Your task to perform on an android device: turn off data saver in the chrome app Image 0: 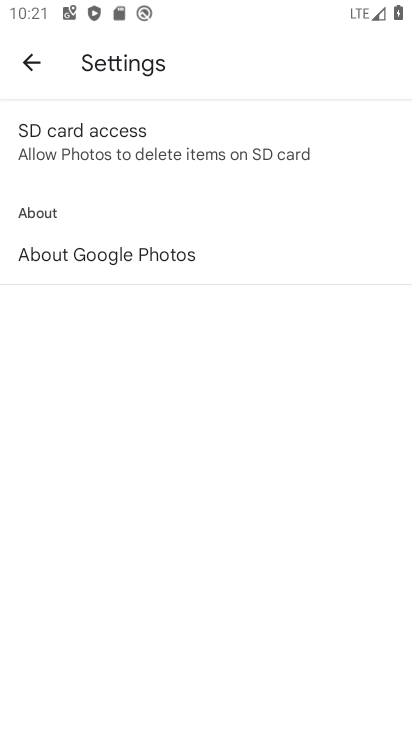
Step 0: press home button
Your task to perform on an android device: turn off data saver in the chrome app Image 1: 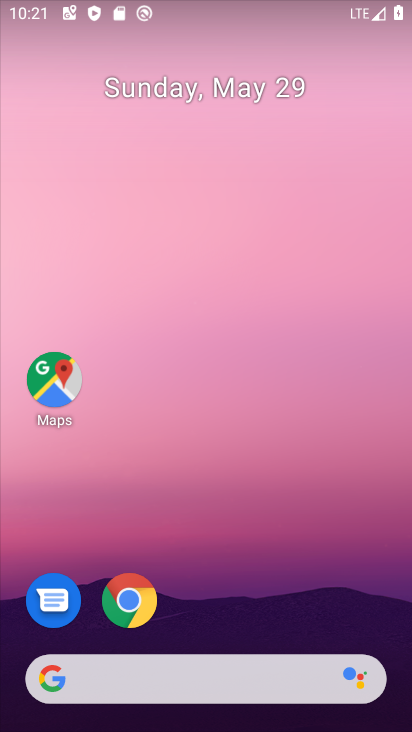
Step 1: click (143, 626)
Your task to perform on an android device: turn off data saver in the chrome app Image 2: 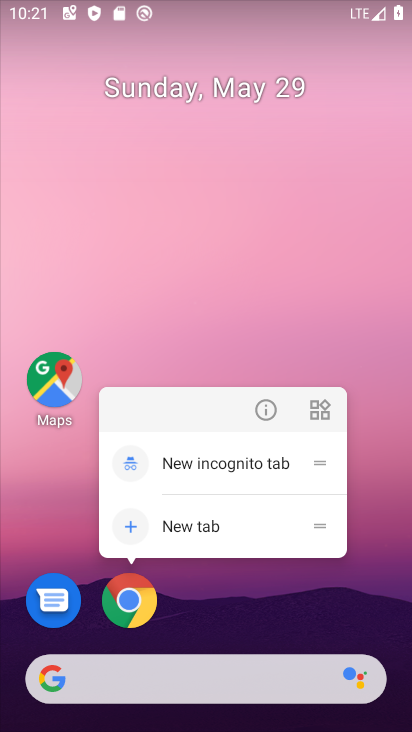
Step 2: click (143, 626)
Your task to perform on an android device: turn off data saver in the chrome app Image 3: 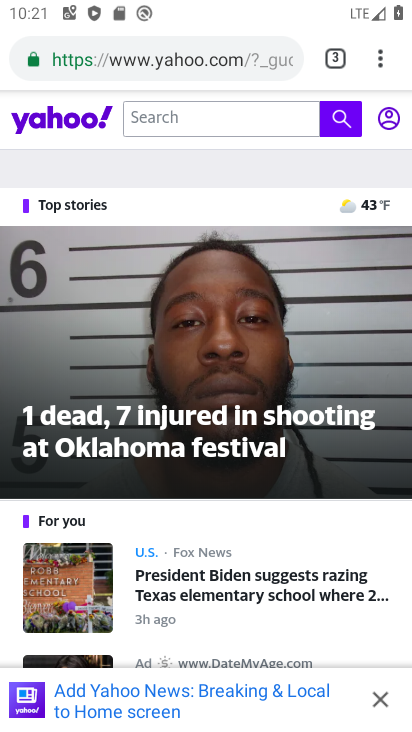
Step 3: drag from (376, 61) to (190, 607)
Your task to perform on an android device: turn off data saver in the chrome app Image 4: 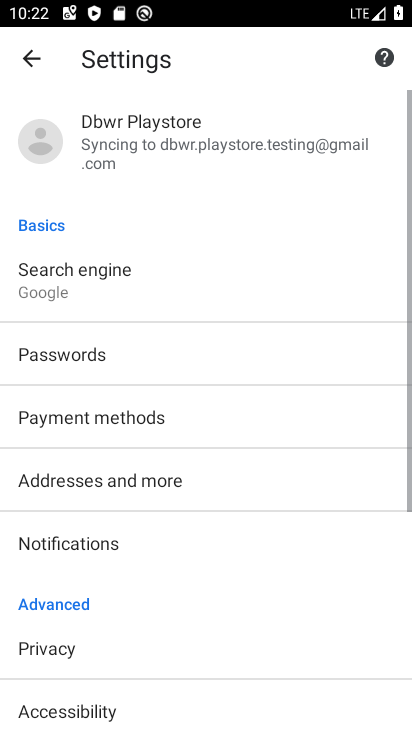
Step 4: drag from (210, 660) to (278, 58)
Your task to perform on an android device: turn off data saver in the chrome app Image 5: 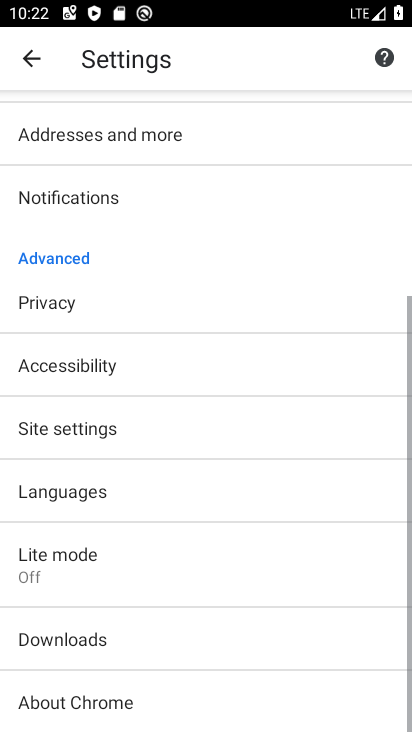
Step 5: click (137, 545)
Your task to perform on an android device: turn off data saver in the chrome app Image 6: 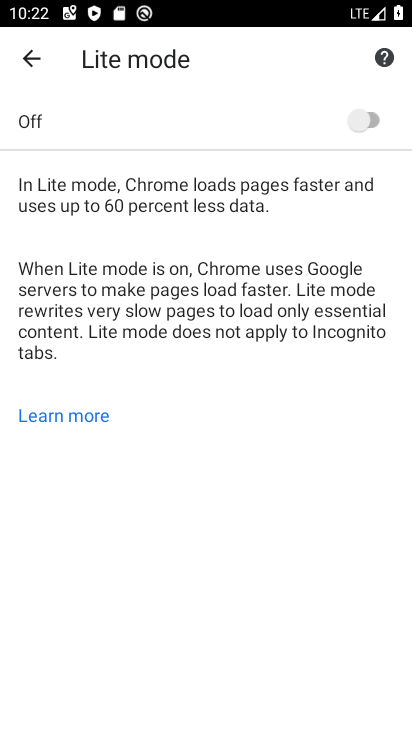
Step 6: task complete